Your task to perform on an android device: Go to Amazon Image 0: 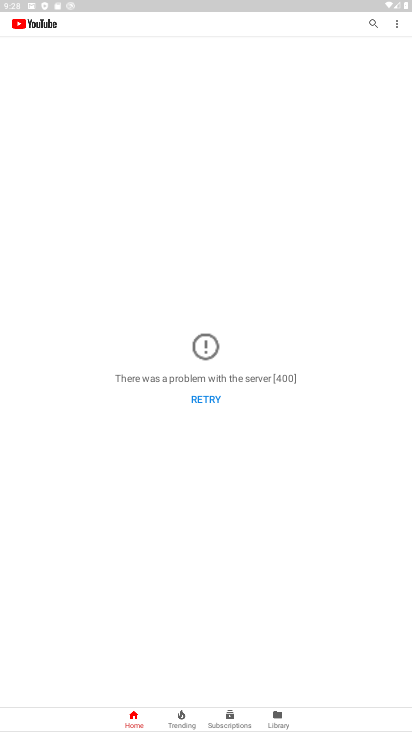
Step 0: press home button
Your task to perform on an android device: Go to Amazon Image 1: 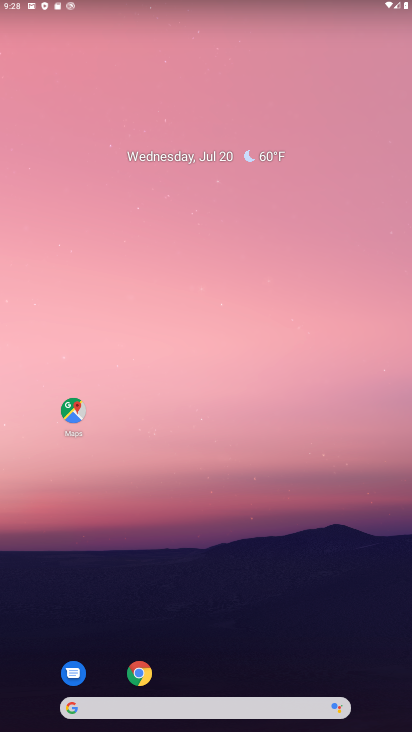
Step 1: click (140, 669)
Your task to perform on an android device: Go to Amazon Image 2: 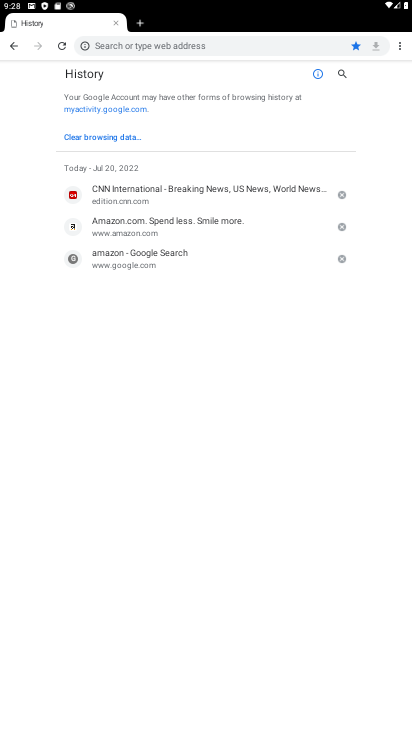
Step 2: click (10, 44)
Your task to perform on an android device: Go to Amazon Image 3: 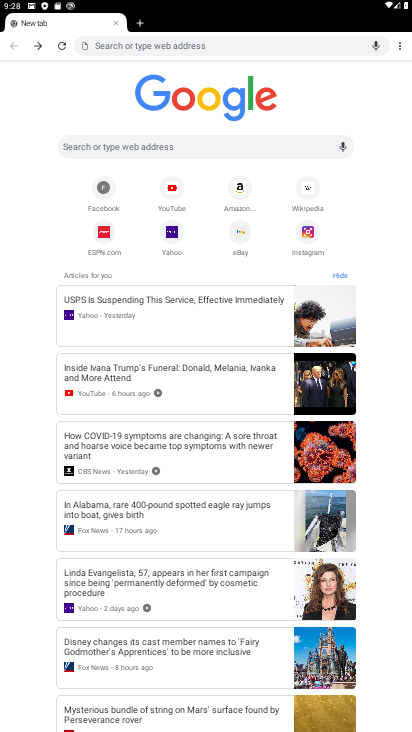
Step 3: click (242, 188)
Your task to perform on an android device: Go to Amazon Image 4: 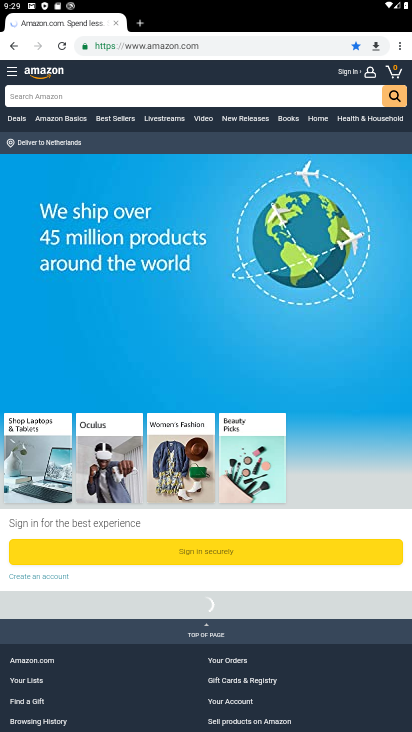
Step 4: task complete